Your task to perform on an android device: set the stopwatch Image 0: 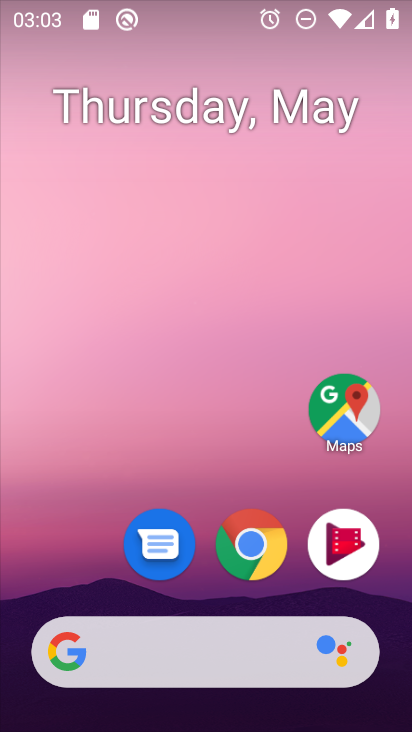
Step 0: drag from (46, 581) to (77, 228)
Your task to perform on an android device: set the stopwatch Image 1: 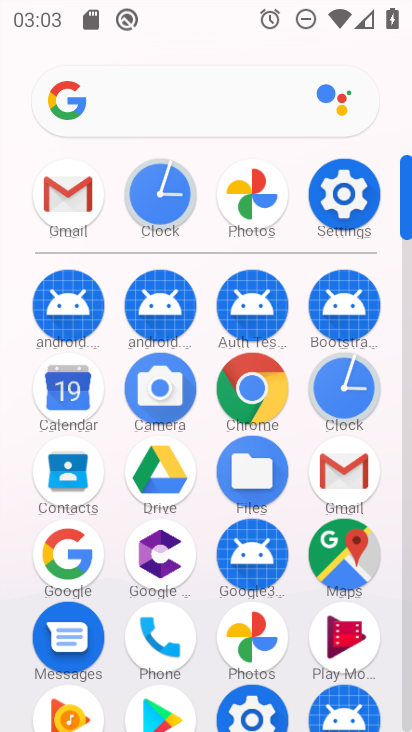
Step 1: click (344, 402)
Your task to perform on an android device: set the stopwatch Image 2: 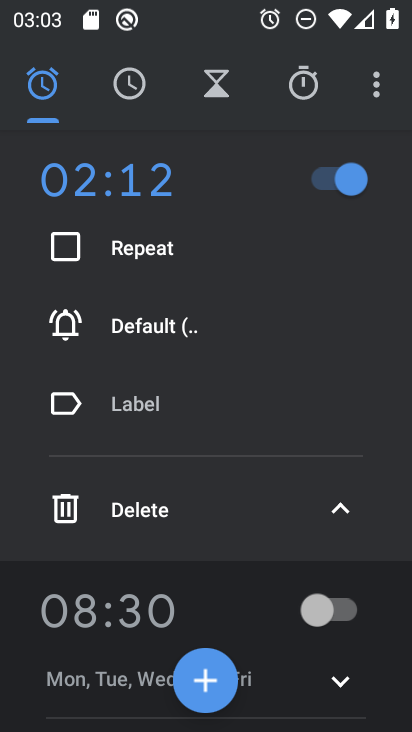
Step 2: click (311, 81)
Your task to perform on an android device: set the stopwatch Image 3: 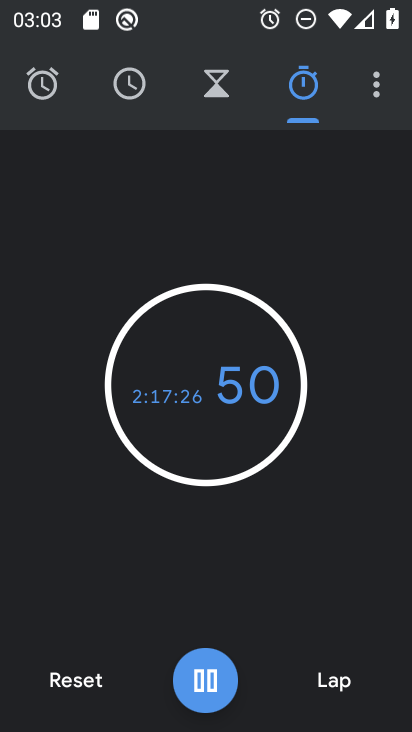
Step 3: task complete